Your task to perform on an android device: find snoozed emails in the gmail app Image 0: 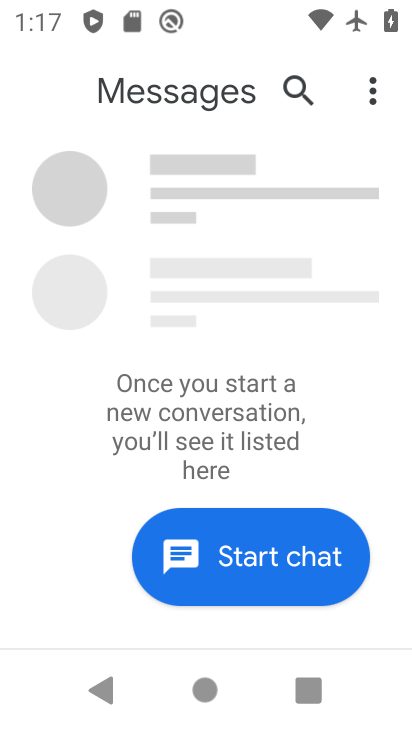
Step 0: press home button
Your task to perform on an android device: find snoozed emails in the gmail app Image 1: 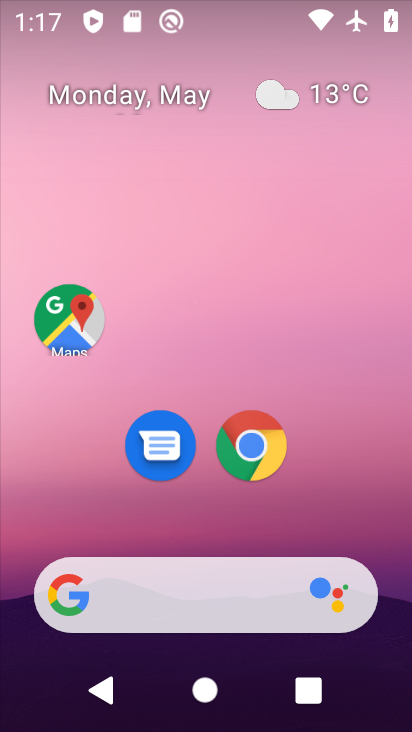
Step 1: drag from (396, 622) to (288, 79)
Your task to perform on an android device: find snoozed emails in the gmail app Image 2: 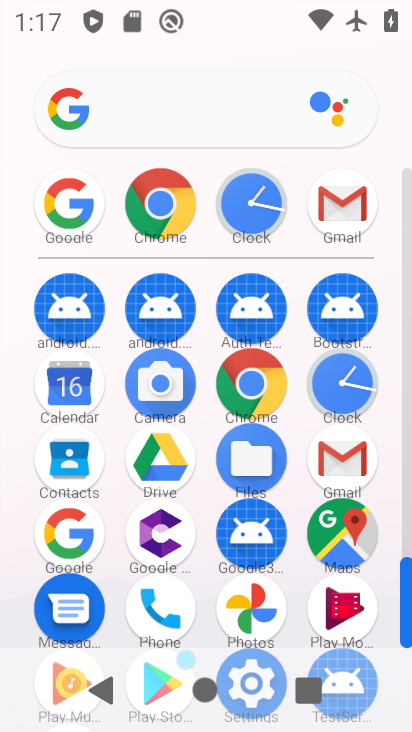
Step 2: click (341, 449)
Your task to perform on an android device: find snoozed emails in the gmail app Image 3: 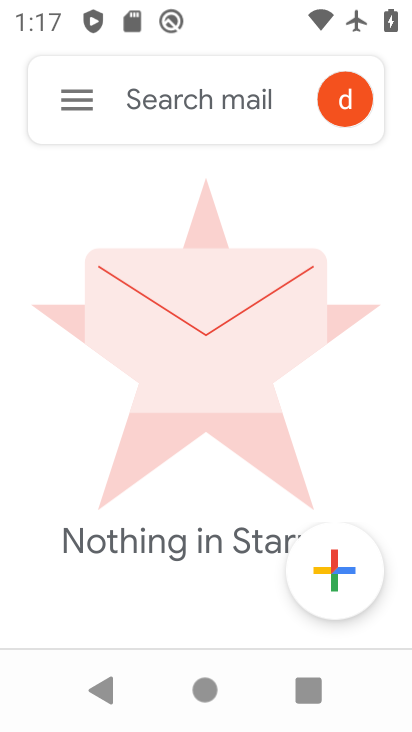
Step 3: click (73, 96)
Your task to perform on an android device: find snoozed emails in the gmail app Image 4: 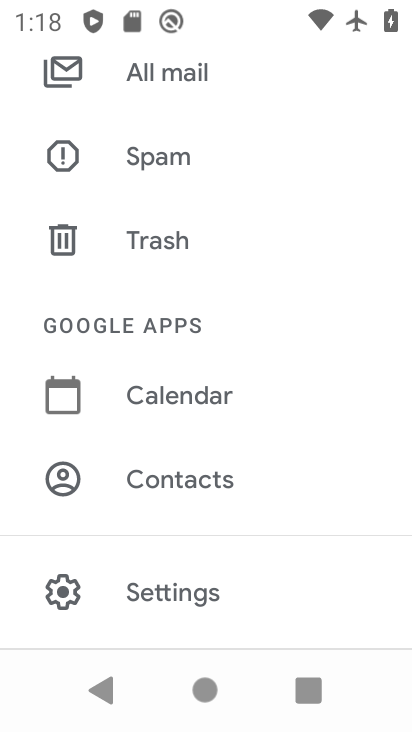
Step 4: drag from (207, 156) to (205, 590)
Your task to perform on an android device: find snoozed emails in the gmail app Image 5: 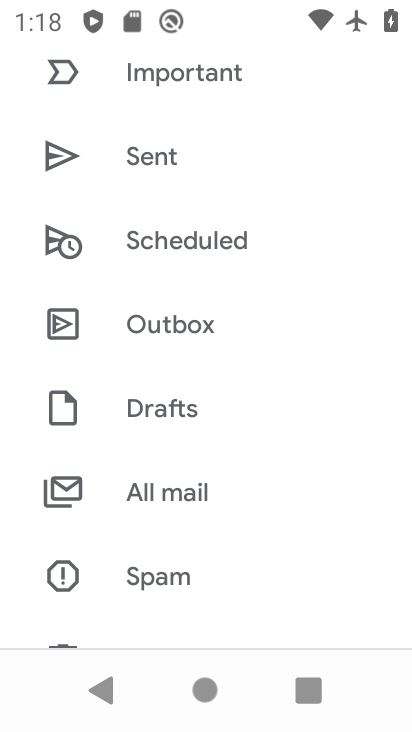
Step 5: drag from (240, 335) to (249, 574)
Your task to perform on an android device: find snoozed emails in the gmail app Image 6: 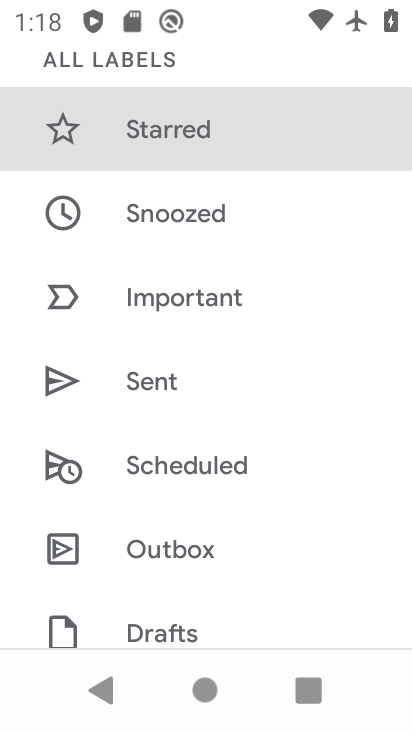
Step 6: click (250, 230)
Your task to perform on an android device: find snoozed emails in the gmail app Image 7: 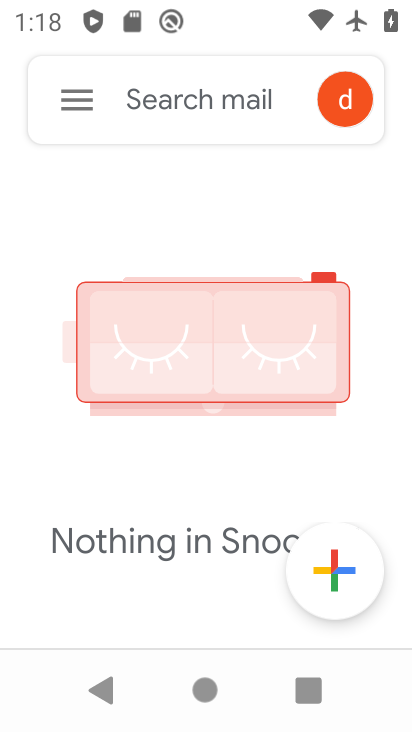
Step 7: task complete